Your task to perform on an android device: open a new tab in the chrome app Image 0: 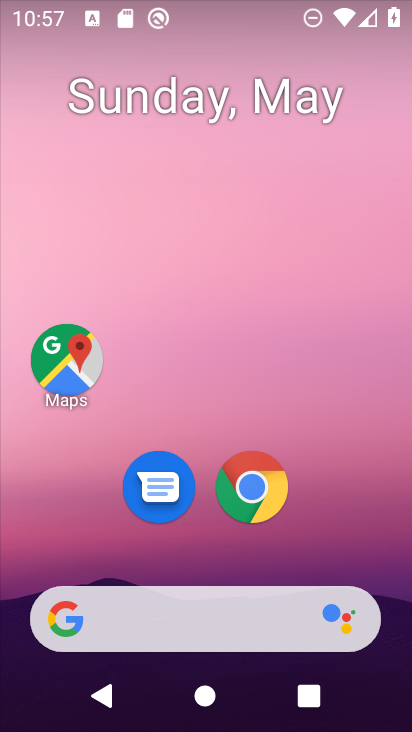
Step 0: drag from (264, 555) to (183, 75)
Your task to perform on an android device: open a new tab in the chrome app Image 1: 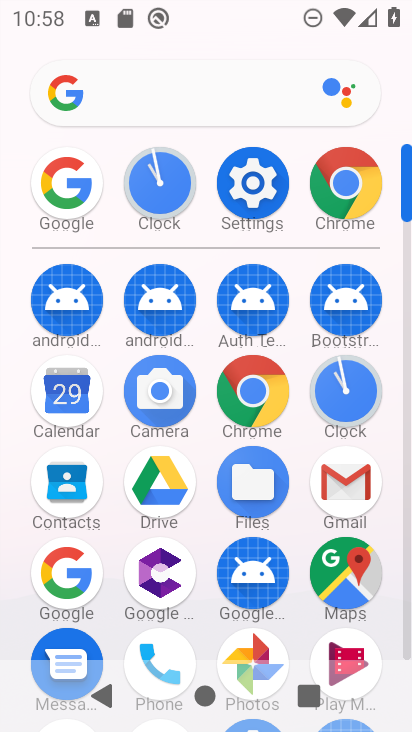
Step 1: click (352, 190)
Your task to perform on an android device: open a new tab in the chrome app Image 2: 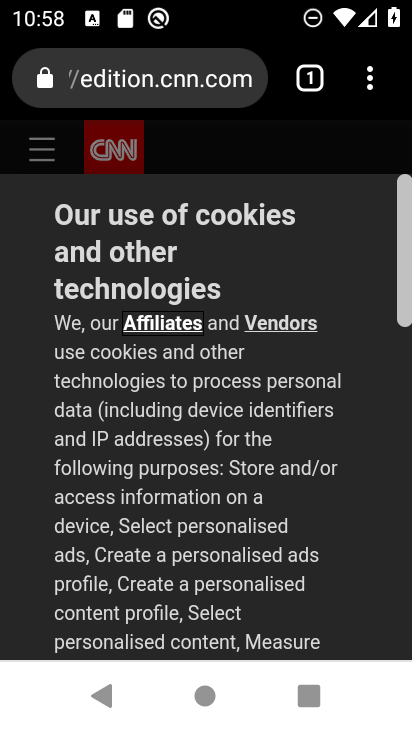
Step 2: drag from (325, 94) to (321, 256)
Your task to perform on an android device: open a new tab in the chrome app Image 3: 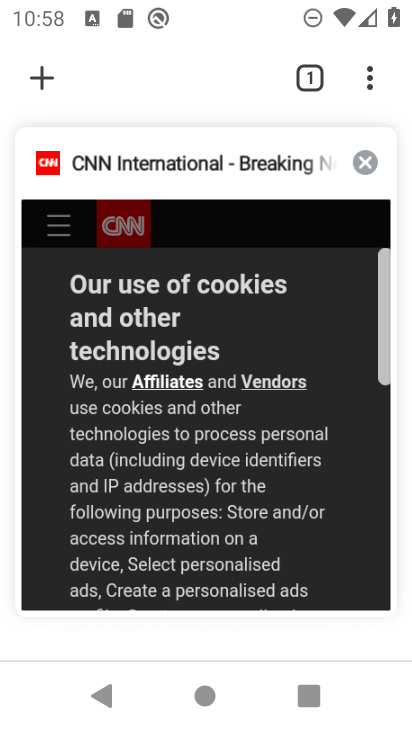
Step 3: click (34, 73)
Your task to perform on an android device: open a new tab in the chrome app Image 4: 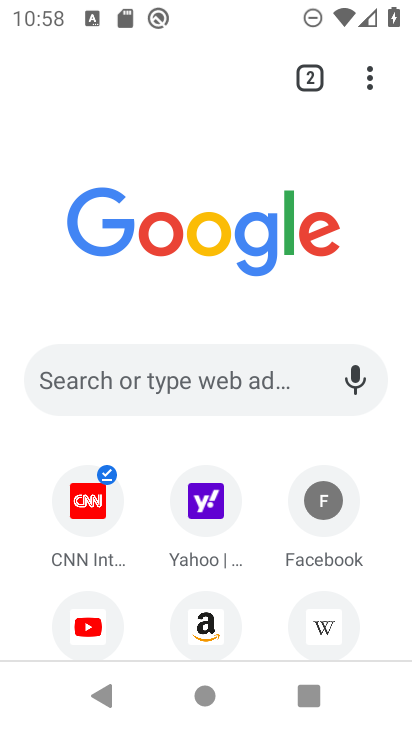
Step 4: task complete